Your task to perform on an android device: turn off priority inbox in the gmail app Image 0: 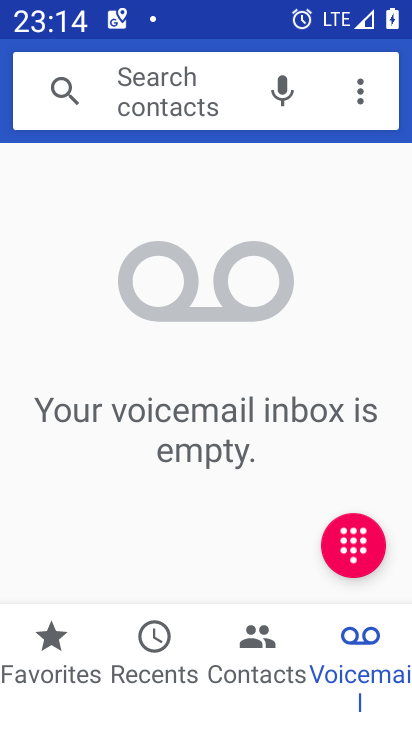
Step 0: press home button
Your task to perform on an android device: turn off priority inbox in the gmail app Image 1: 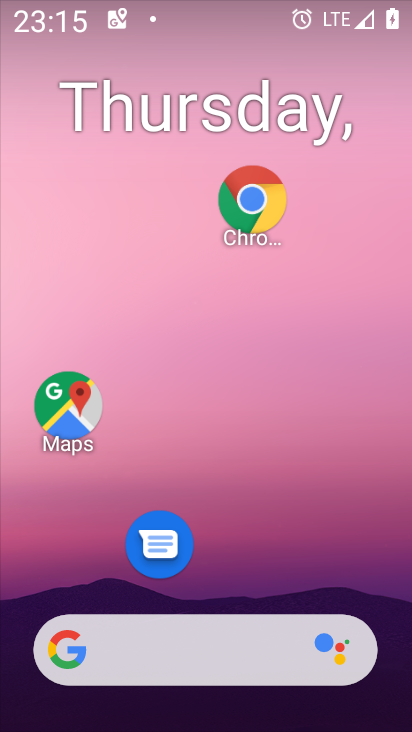
Step 1: drag from (247, 604) to (279, 143)
Your task to perform on an android device: turn off priority inbox in the gmail app Image 2: 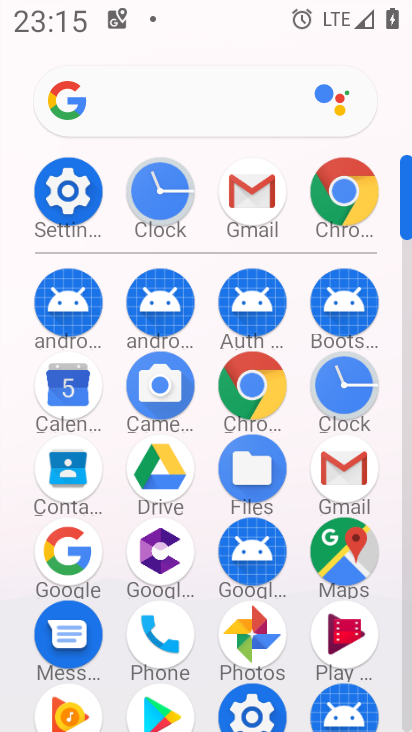
Step 2: click (270, 193)
Your task to perform on an android device: turn off priority inbox in the gmail app Image 3: 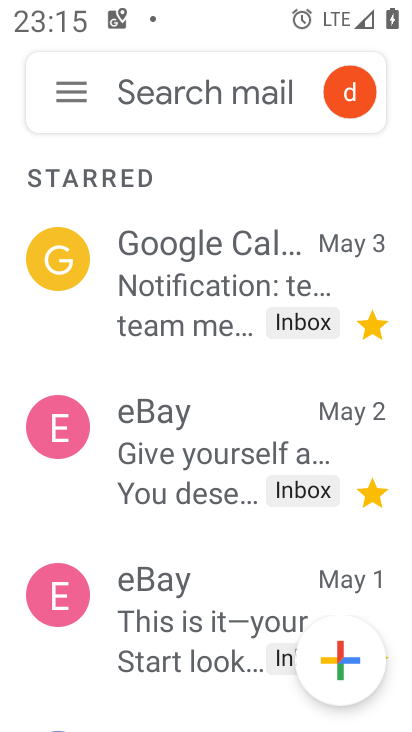
Step 3: click (66, 91)
Your task to perform on an android device: turn off priority inbox in the gmail app Image 4: 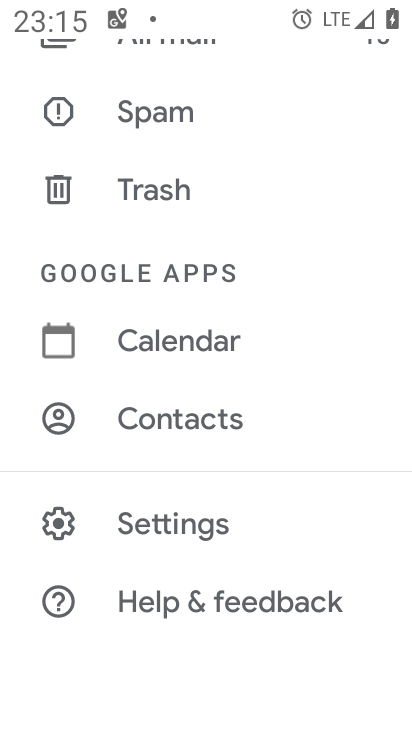
Step 4: click (247, 531)
Your task to perform on an android device: turn off priority inbox in the gmail app Image 5: 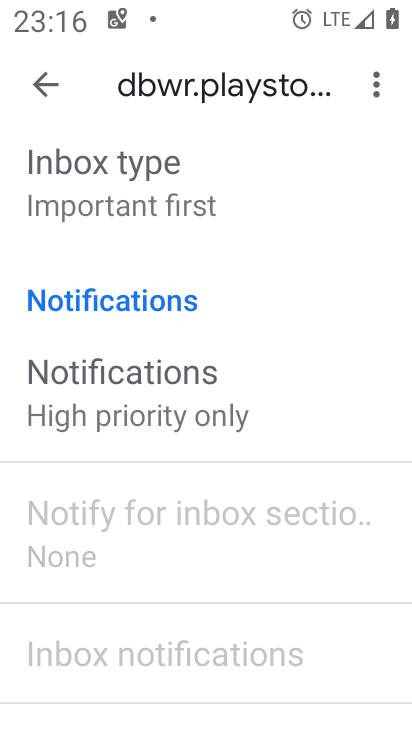
Step 5: click (207, 434)
Your task to perform on an android device: turn off priority inbox in the gmail app Image 6: 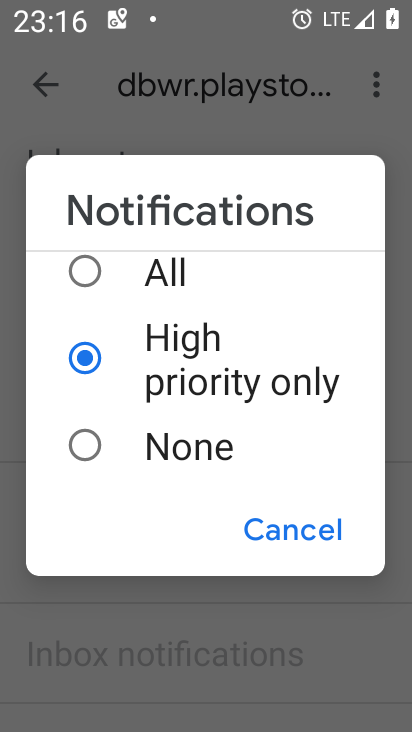
Step 6: click (165, 443)
Your task to perform on an android device: turn off priority inbox in the gmail app Image 7: 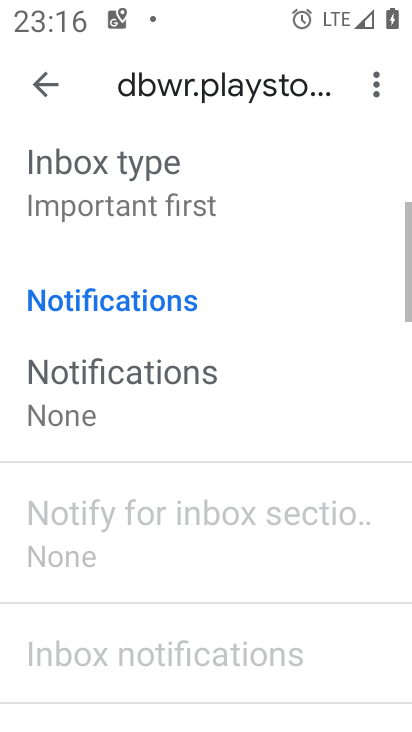
Step 7: task complete